Your task to perform on an android device: uninstall "Contacts" Image 0: 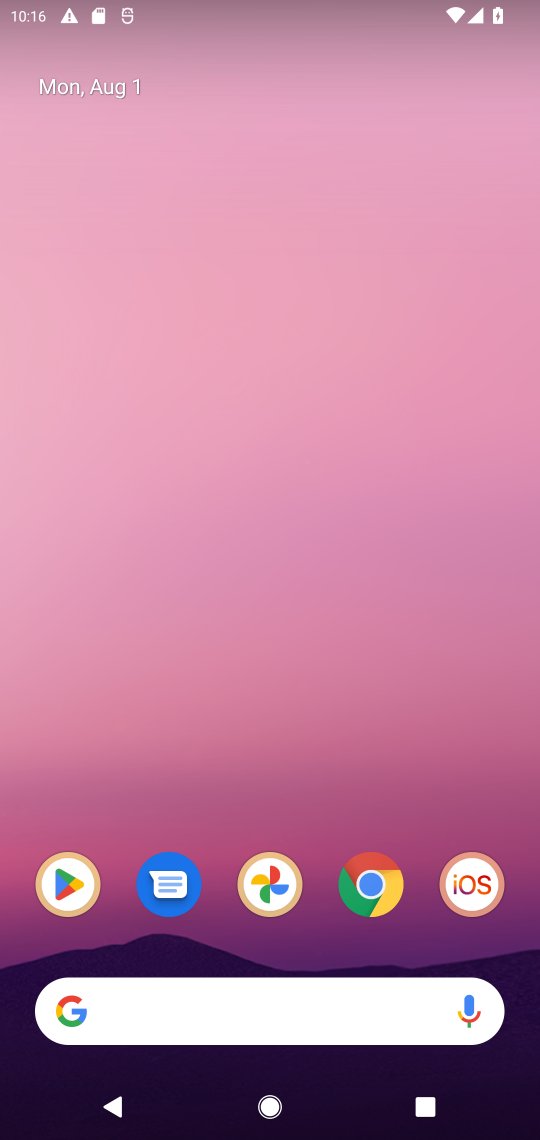
Step 0: click (49, 887)
Your task to perform on an android device: uninstall "Contacts" Image 1: 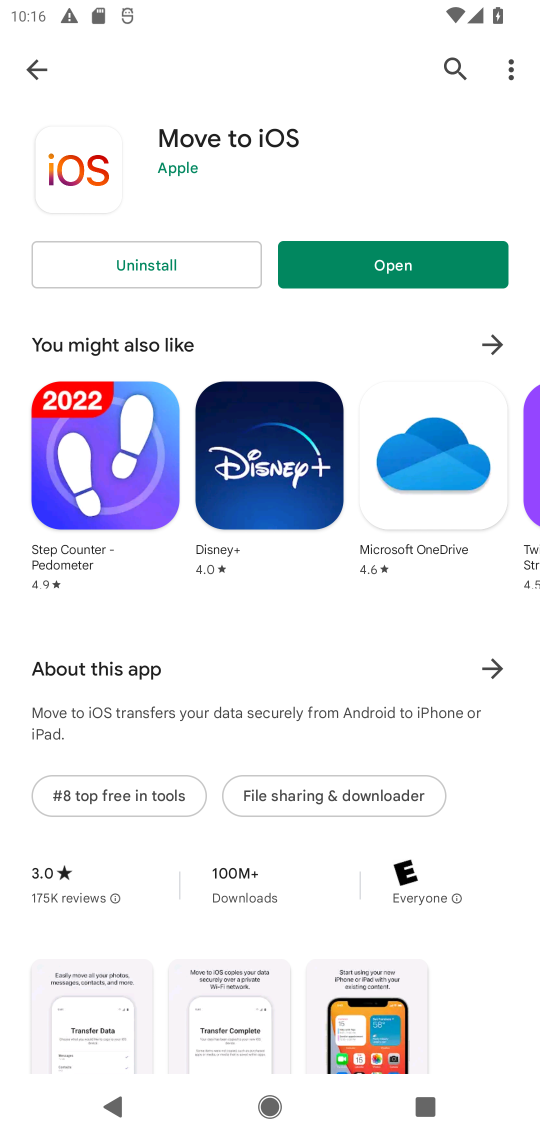
Step 1: click (457, 55)
Your task to perform on an android device: uninstall "Contacts" Image 2: 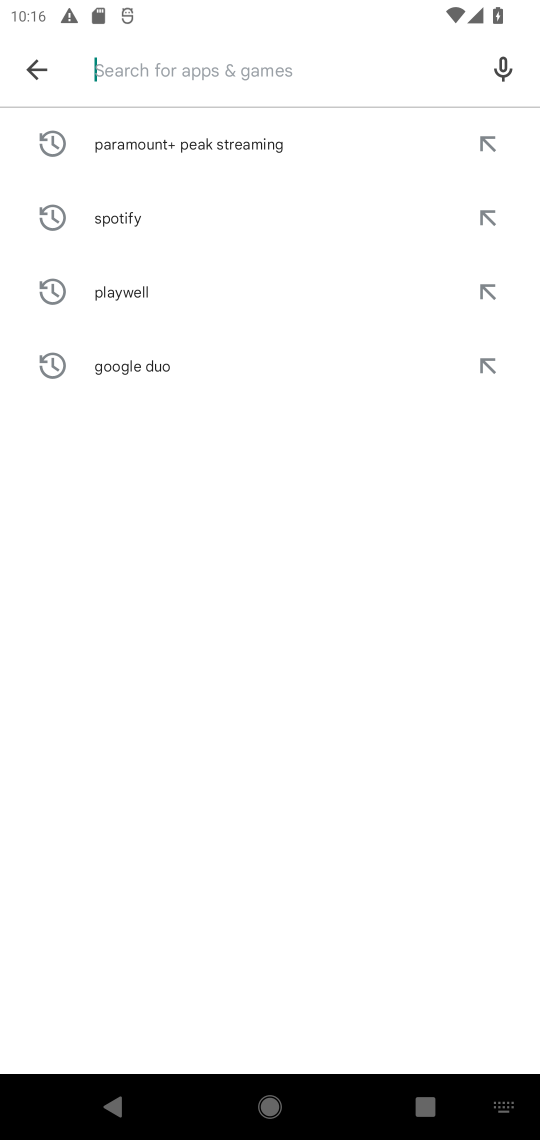
Step 2: type "contacts"
Your task to perform on an android device: uninstall "Contacts" Image 3: 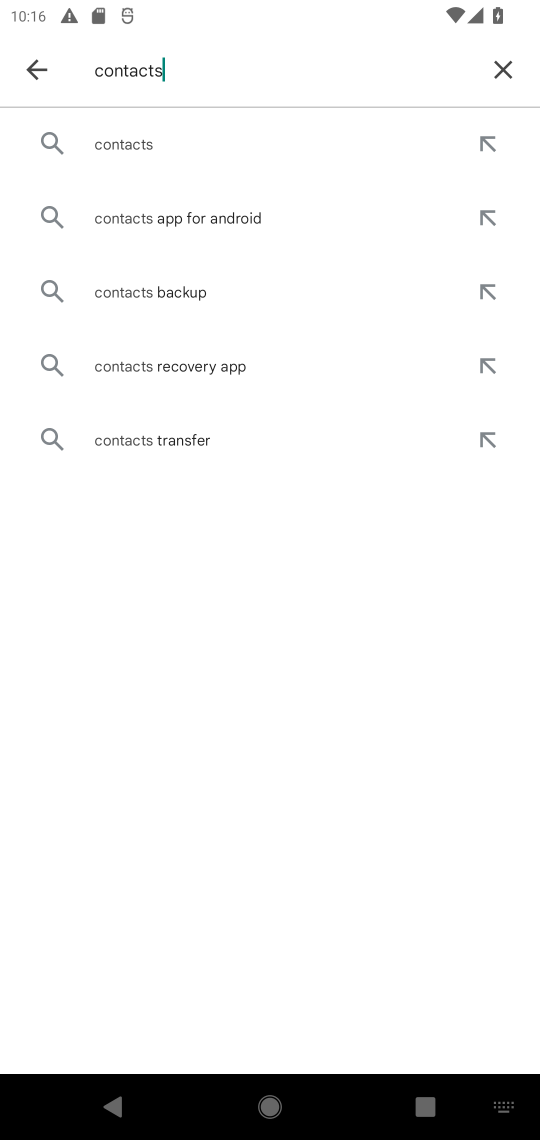
Step 3: click (126, 132)
Your task to perform on an android device: uninstall "Contacts" Image 4: 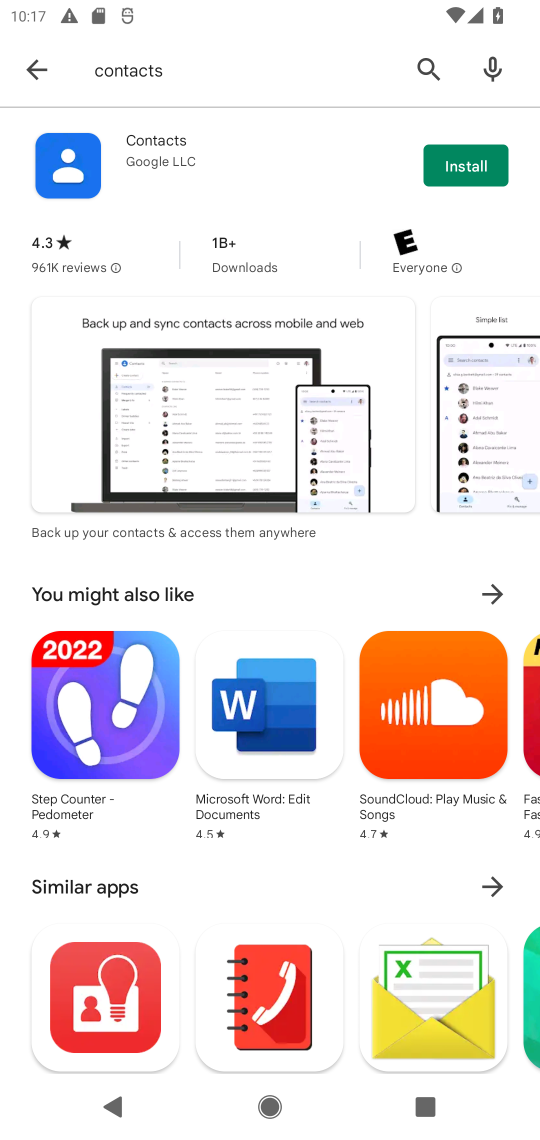
Step 4: click (162, 142)
Your task to perform on an android device: uninstall "Contacts" Image 5: 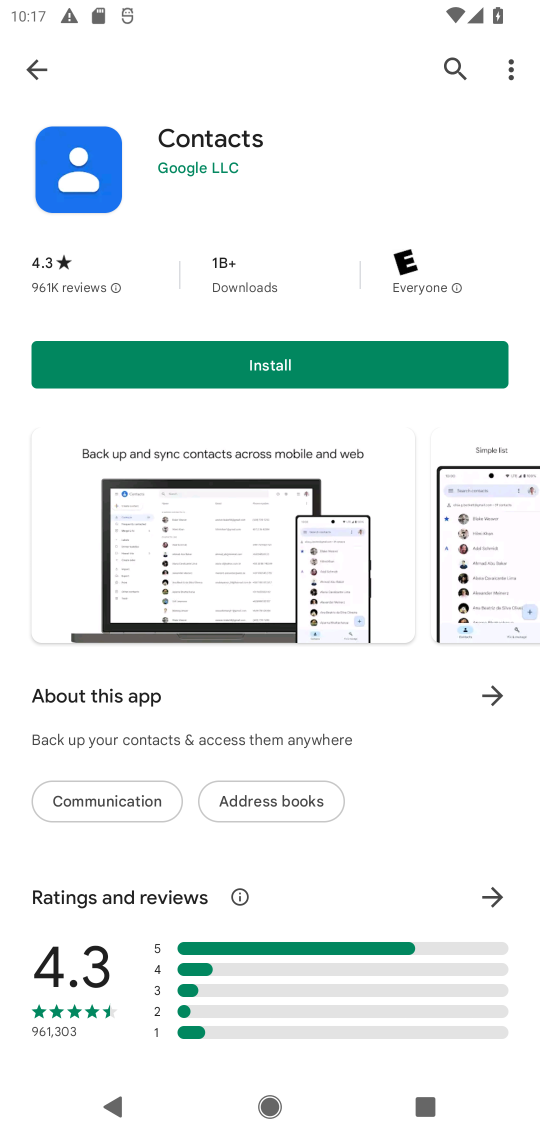
Step 5: task complete